Your task to perform on an android device: see sites visited before in the chrome app Image 0: 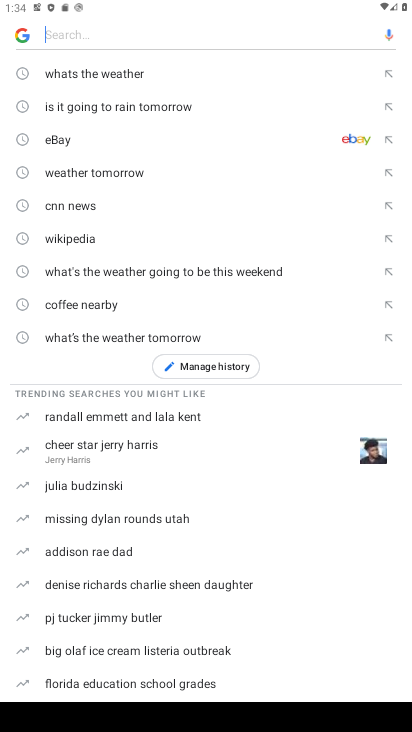
Step 0: press back button
Your task to perform on an android device: see sites visited before in the chrome app Image 1: 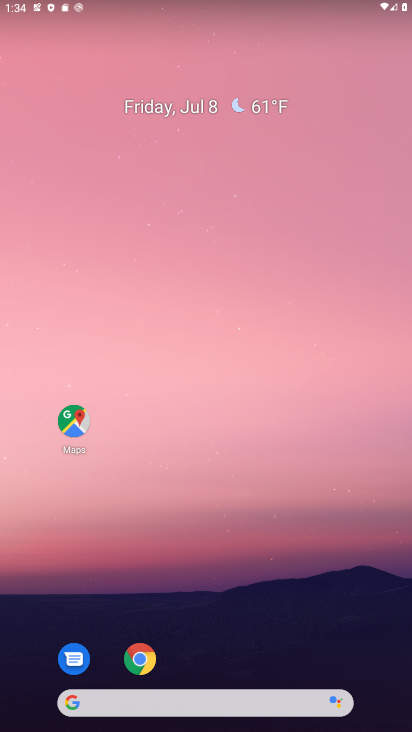
Step 1: drag from (209, 674) to (148, 172)
Your task to perform on an android device: see sites visited before in the chrome app Image 2: 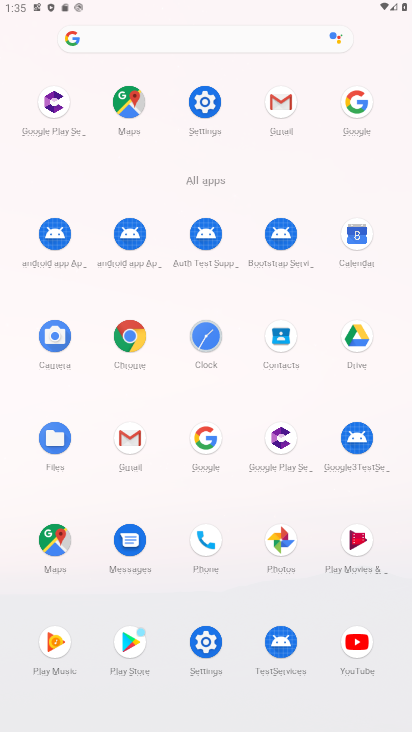
Step 2: click (123, 345)
Your task to perform on an android device: see sites visited before in the chrome app Image 3: 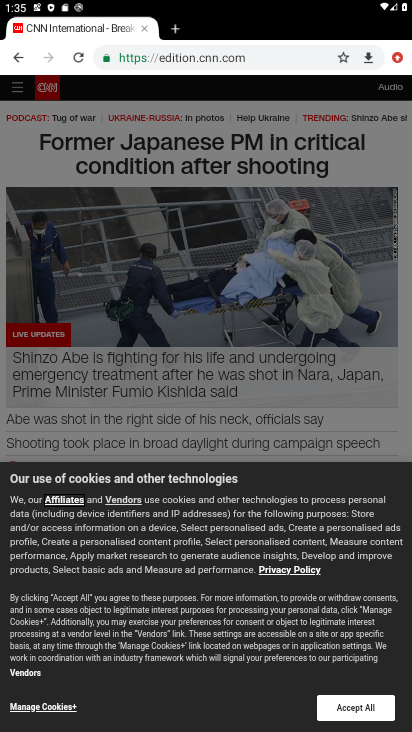
Step 3: click (385, 66)
Your task to perform on an android device: see sites visited before in the chrome app Image 4: 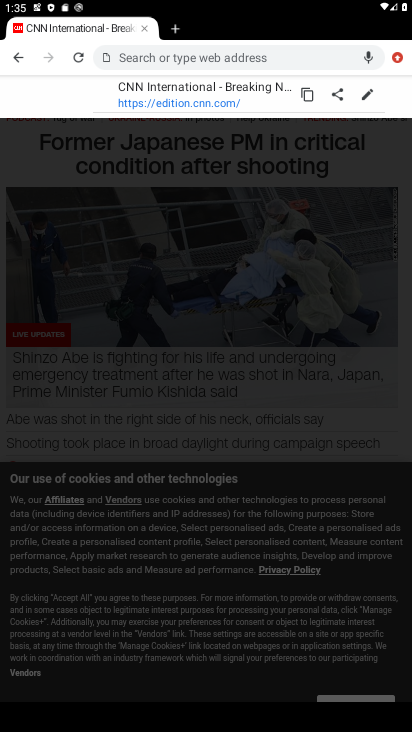
Step 4: click (383, 194)
Your task to perform on an android device: see sites visited before in the chrome app Image 5: 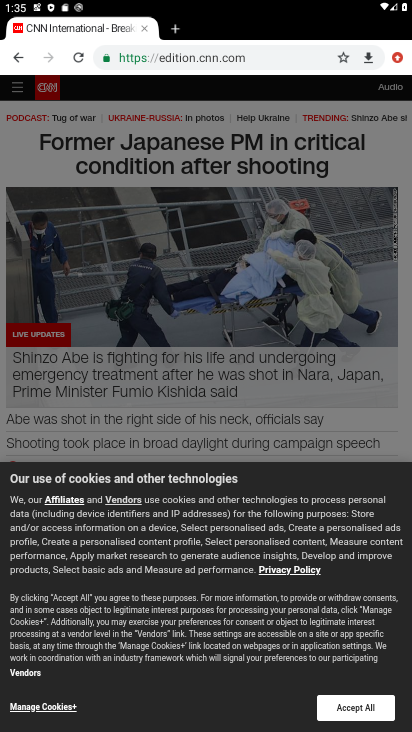
Step 5: click (396, 50)
Your task to perform on an android device: see sites visited before in the chrome app Image 6: 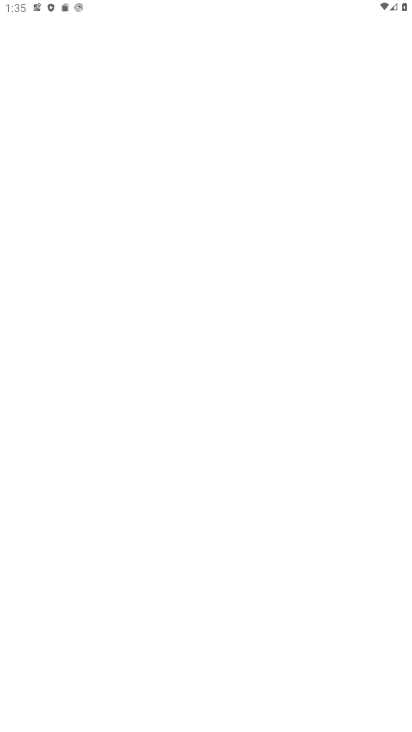
Step 6: press back button
Your task to perform on an android device: see sites visited before in the chrome app Image 7: 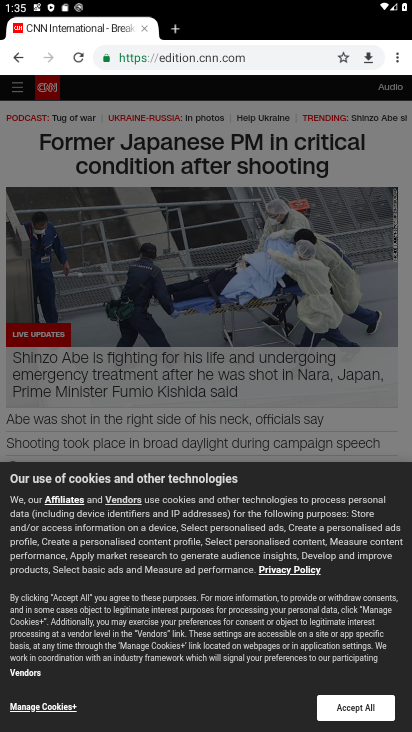
Step 7: click (396, 56)
Your task to perform on an android device: see sites visited before in the chrome app Image 8: 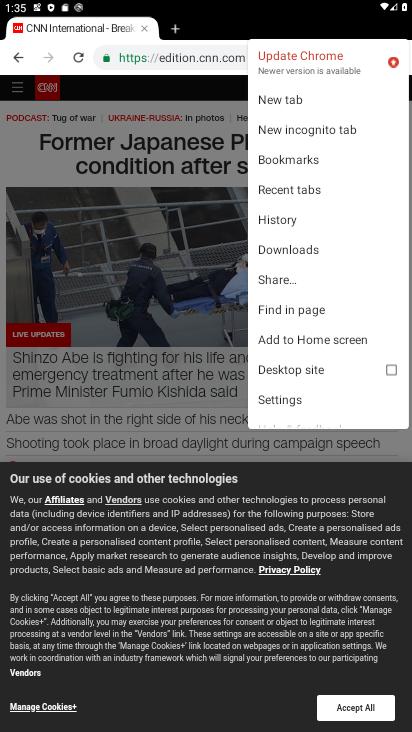
Step 8: click (285, 217)
Your task to perform on an android device: see sites visited before in the chrome app Image 9: 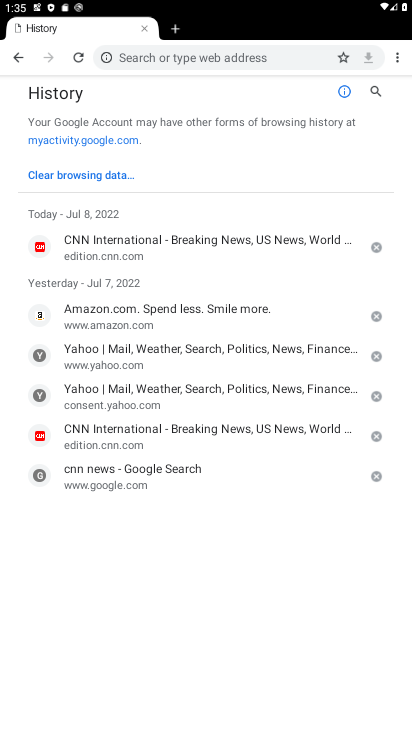
Step 9: task complete